Your task to perform on an android device: Show me popular games on the Play Store Image 0: 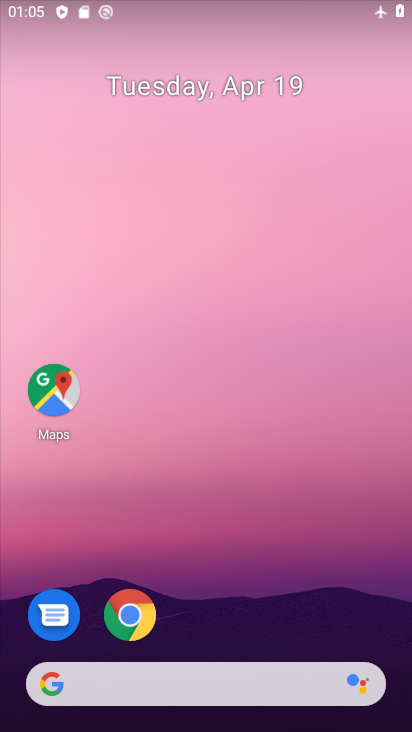
Step 0: drag from (312, 581) to (302, 220)
Your task to perform on an android device: Show me popular games on the Play Store Image 1: 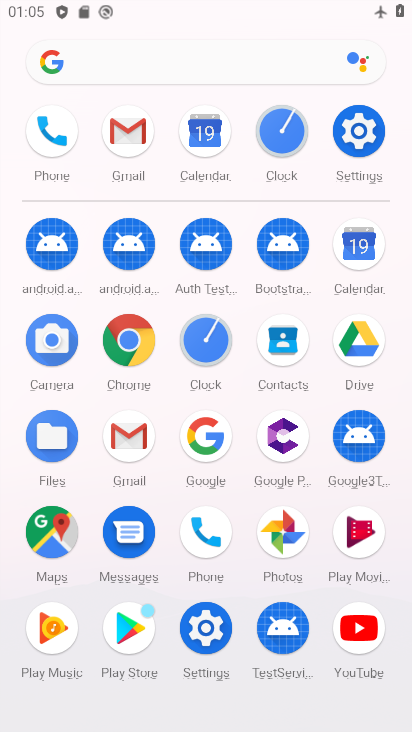
Step 1: click (136, 641)
Your task to perform on an android device: Show me popular games on the Play Store Image 2: 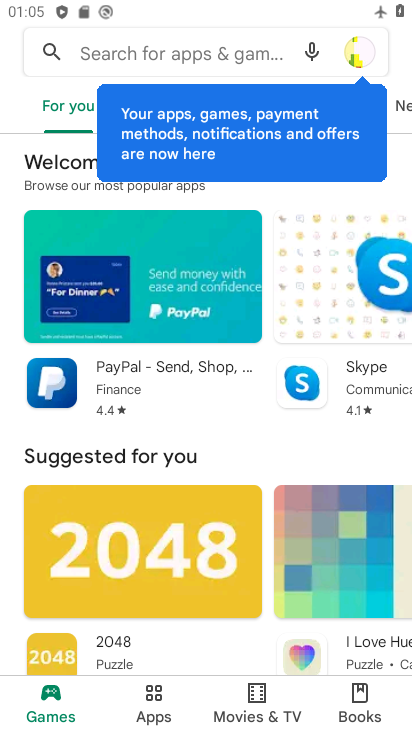
Step 2: drag from (182, 574) to (232, 323)
Your task to perform on an android device: Show me popular games on the Play Store Image 3: 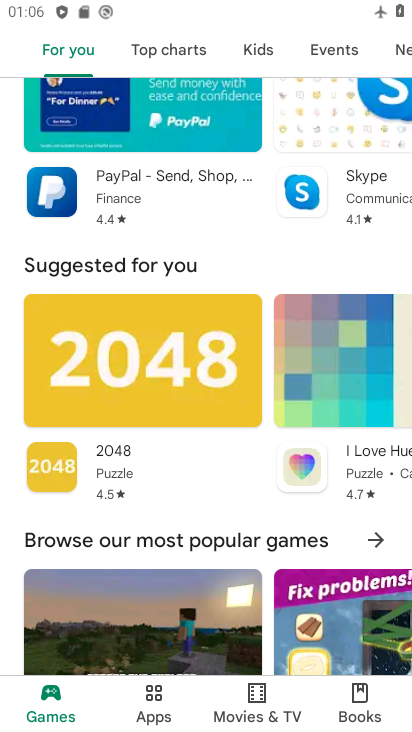
Step 3: click (203, 546)
Your task to perform on an android device: Show me popular games on the Play Store Image 4: 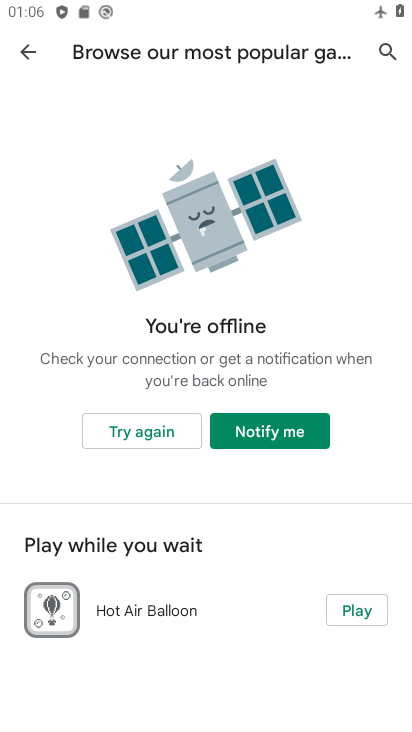
Step 4: task complete